Your task to perform on an android device: Open calendar and show me the fourth week of next month Image 0: 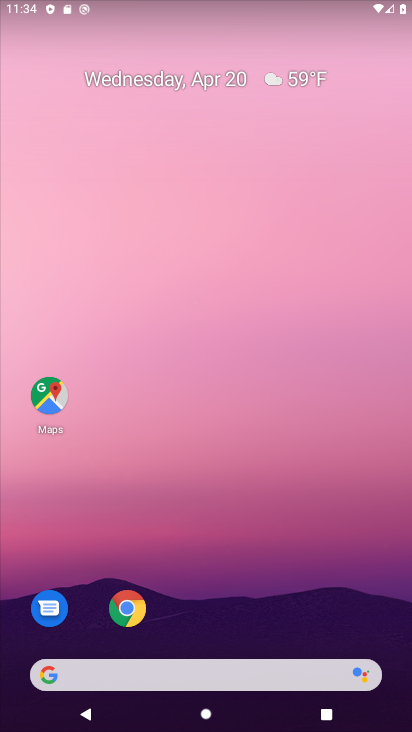
Step 0: drag from (218, 603) to (174, 115)
Your task to perform on an android device: Open calendar and show me the fourth week of next month Image 1: 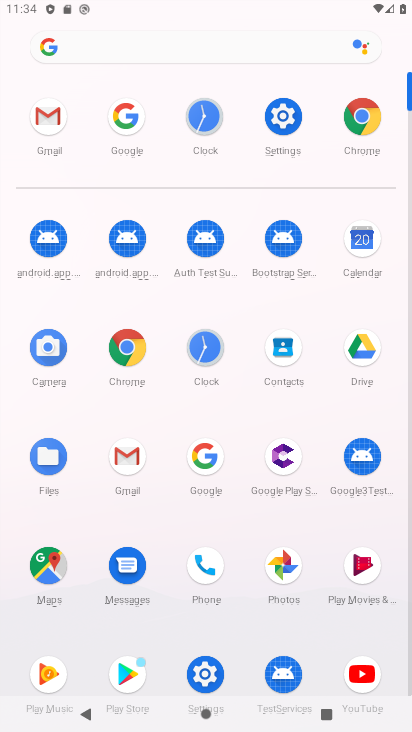
Step 1: click (363, 244)
Your task to perform on an android device: Open calendar and show me the fourth week of next month Image 2: 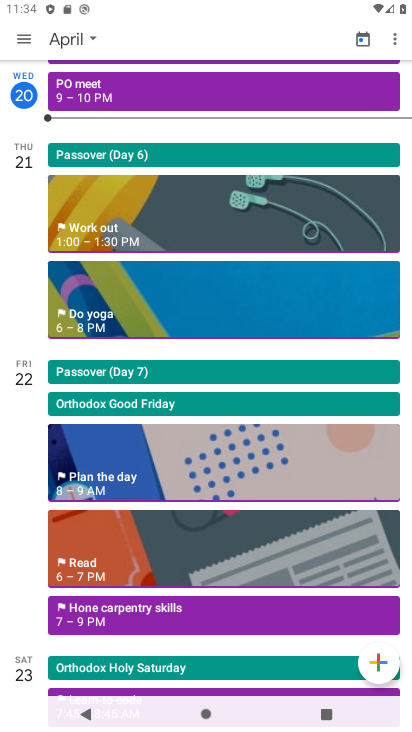
Step 2: click (84, 39)
Your task to perform on an android device: Open calendar and show me the fourth week of next month Image 3: 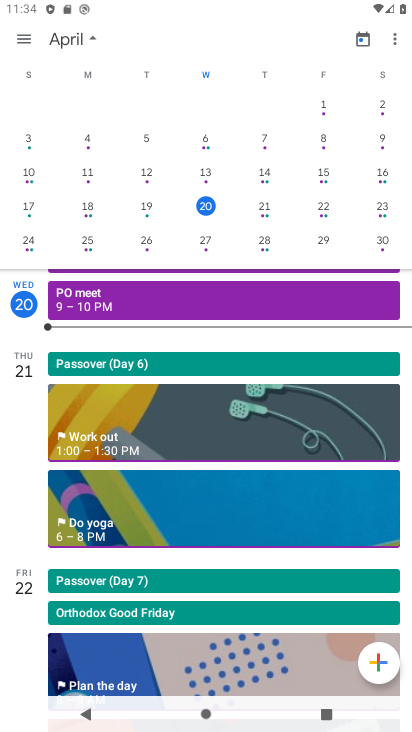
Step 3: drag from (363, 250) to (3, 217)
Your task to perform on an android device: Open calendar and show me the fourth week of next month Image 4: 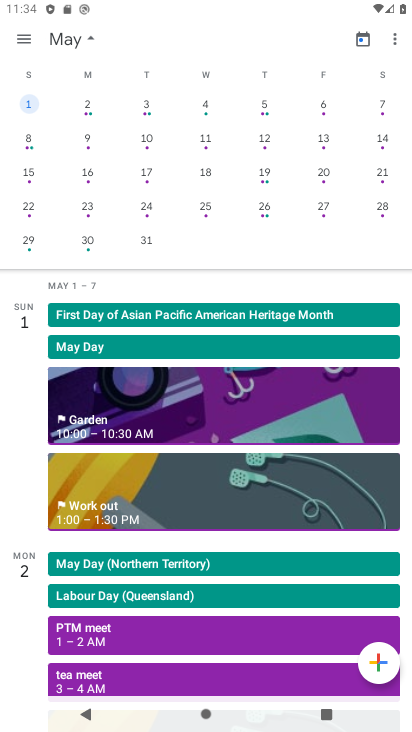
Step 4: click (144, 208)
Your task to perform on an android device: Open calendar and show me the fourth week of next month Image 5: 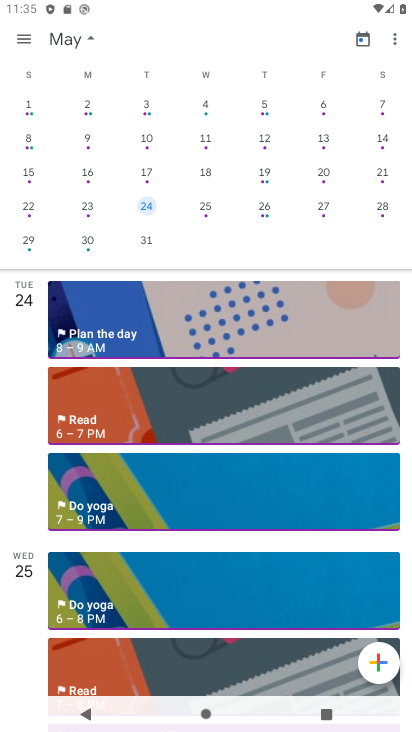
Step 5: task complete